Your task to perform on an android device: Open sound settings Image 0: 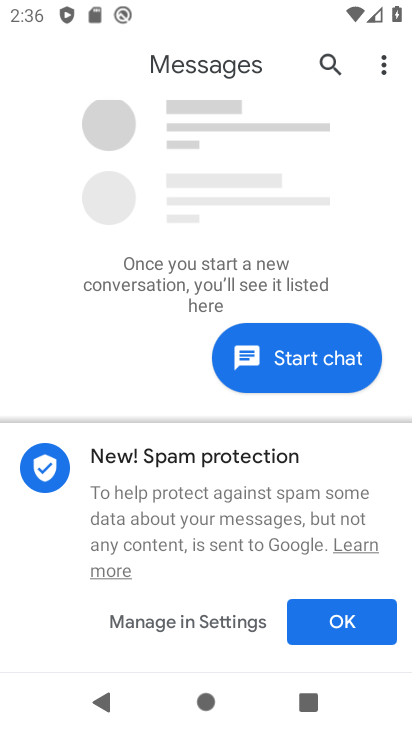
Step 0: press home button
Your task to perform on an android device: Open sound settings Image 1: 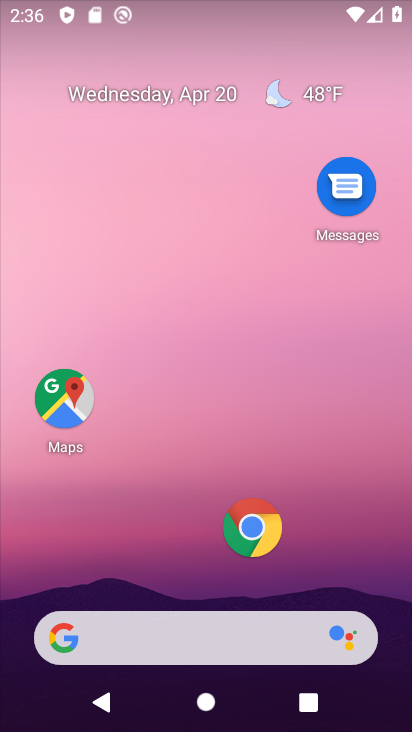
Step 1: drag from (167, 637) to (281, 98)
Your task to perform on an android device: Open sound settings Image 2: 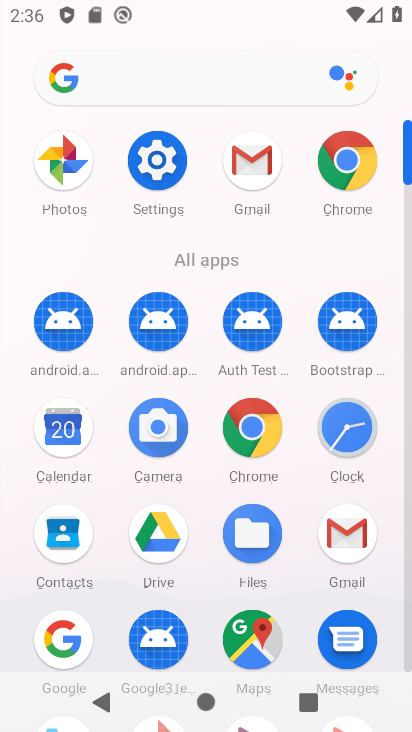
Step 2: click (169, 170)
Your task to perform on an android device: Open sound settings Image 3: 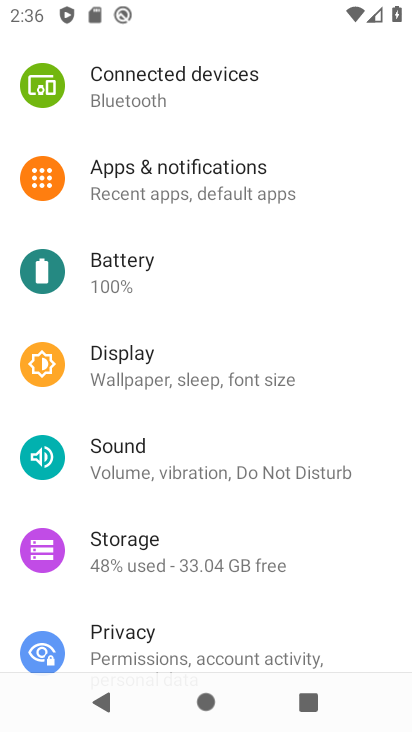
Step 3: click (188, 461)
Your task to perform on an android device: Open sound settings Image 4: 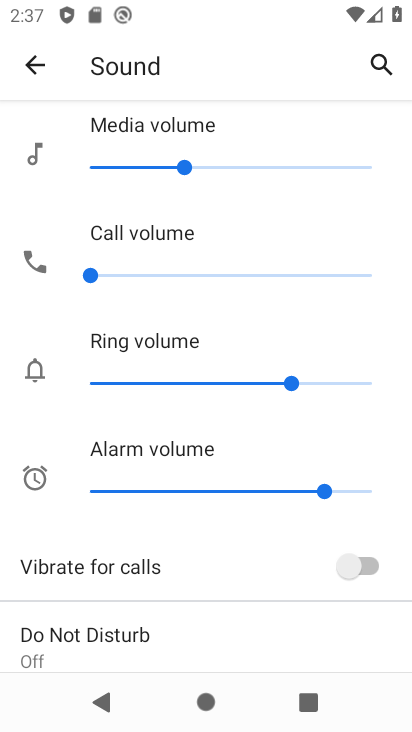
Step 4: task complete